Your task to perform on an android device: turn vacation reply on in the gmail app Image 0: 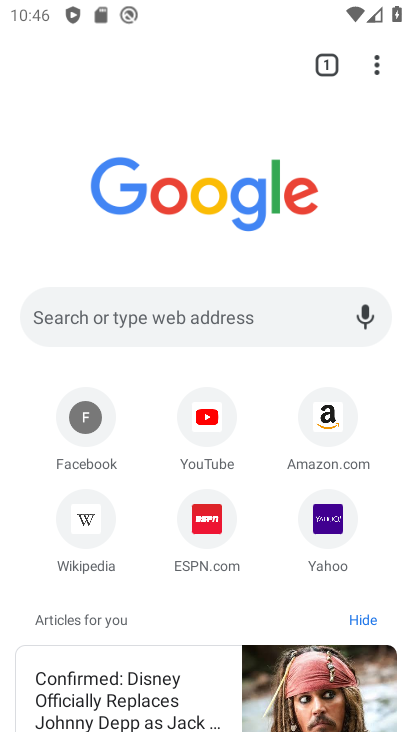
Step 0: press home button
Your task to perform on an android device: turn vacation reply on in the gmail app Image 1: 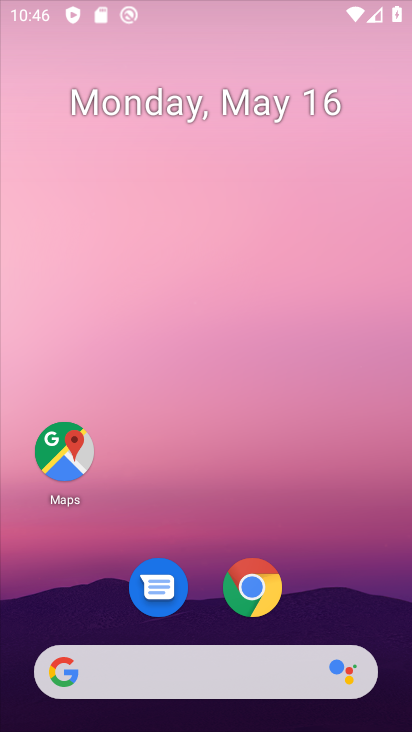
Step 1: drag from (383, 642) to (341, 9)
Your task to perform on an android device: turn vacation reply on in the gmail app Image 2: 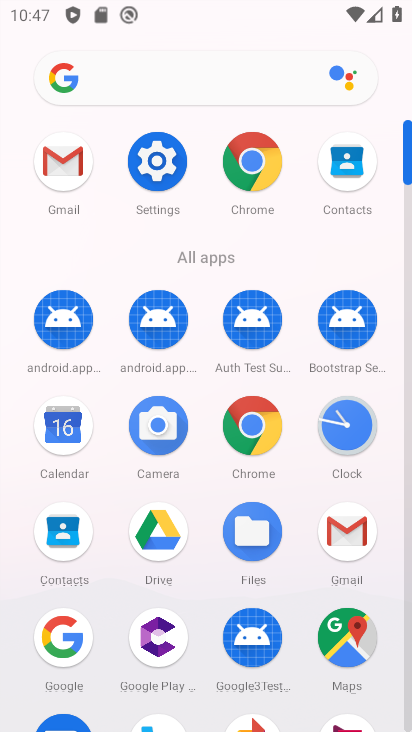
Step 2: click (62, 185)
Your task to perform on an android device: turn vacation reply on in the gmail app Image 3: 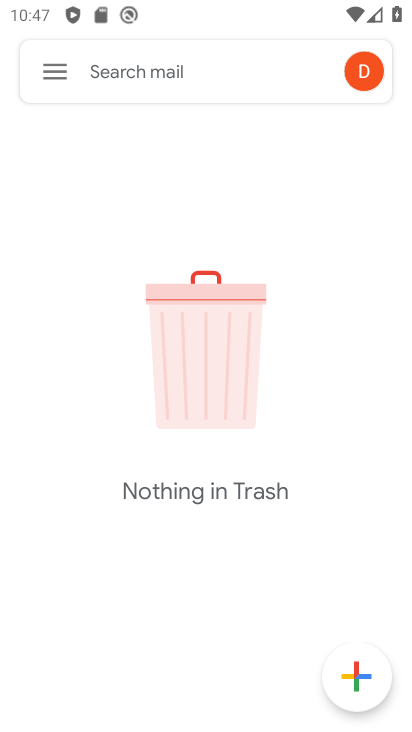
Step 3: click (47, 65)
Your task to perform on an android device: turn vacation reply on in the gmail app Image 4: 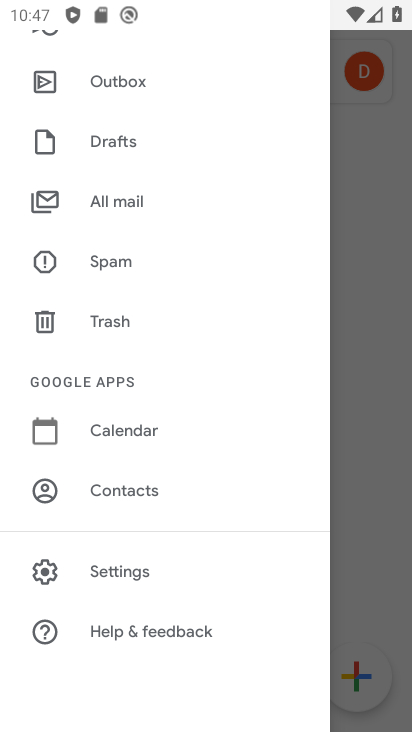
Step 4: click (117, 586)
Your task to perform on an android device: turn vacation reply on in the gmail app Image 5: 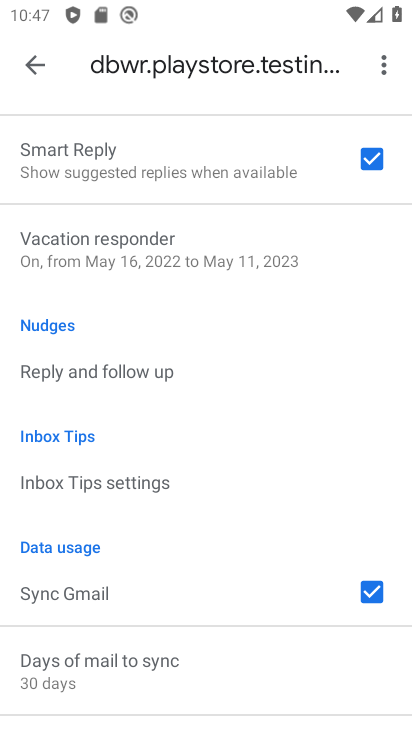
Step 5: click (235, 265)
Your task to perform on an android device: turn vacation reply on in the gmail app Image 6: 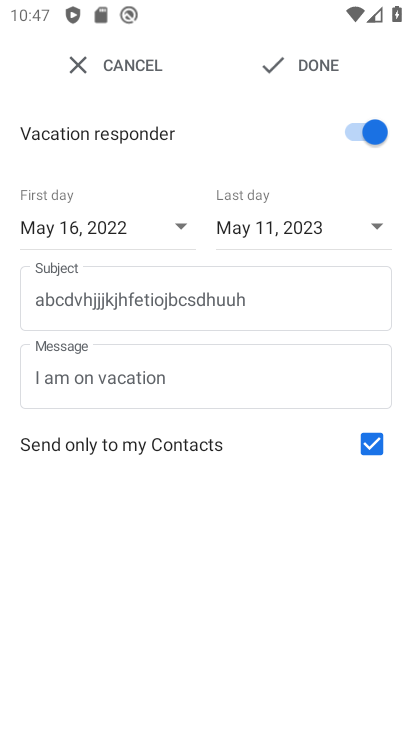
Step 6: task complete